Your task to perform on an android device: Go to Reddit.com Image 0: 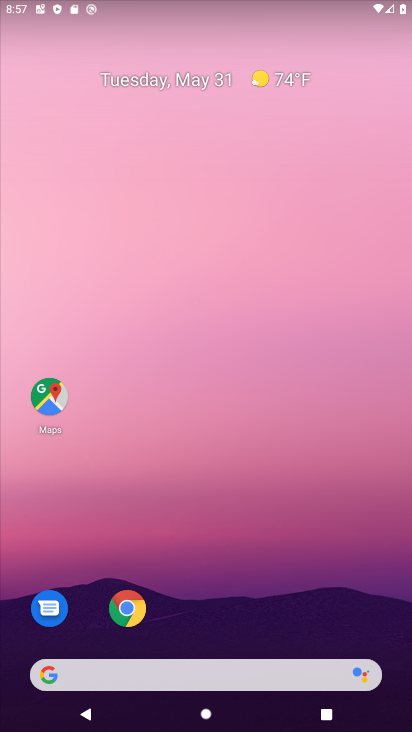
Step 0: click (132, 600)
Your task to perform on an android device: Go to Reddit.com Image 1: 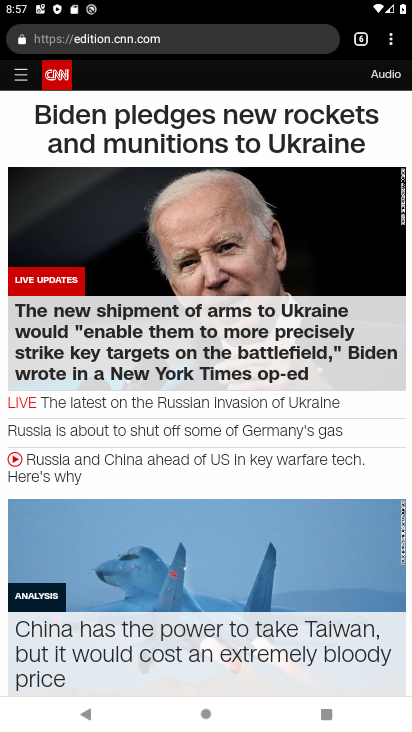
Step 1: click (357, 34)
Your task to perform on an android device: Go to Reddit.com Image 2: 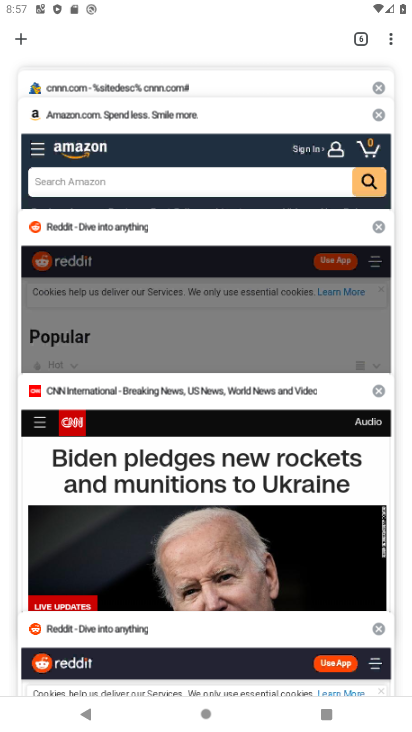
Step 2: click (160, 290)
Your task to perform on an android device: Go to Reddit.com Image 3: 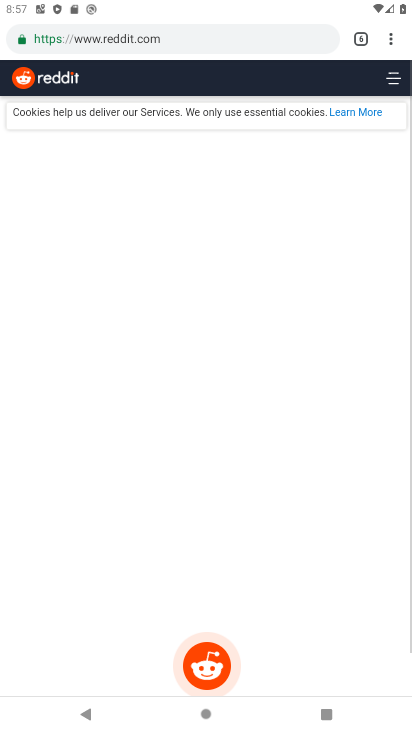
Step 3: click (371, 646)
Your task to perform on an android device: Go to Reddit.com Image 4: 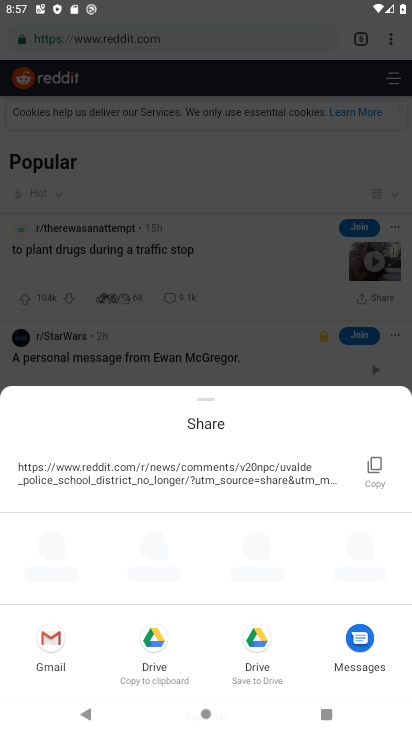
Step 4: task complete